Your task to perform on an android device: Open Google Chrome Image 0: 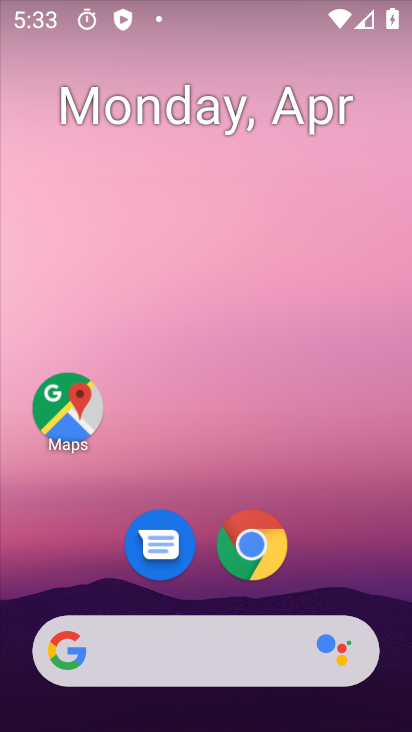
Step 0: click (261, 562)
Your task to perform on an android device: Open Google Chrome Image 1: 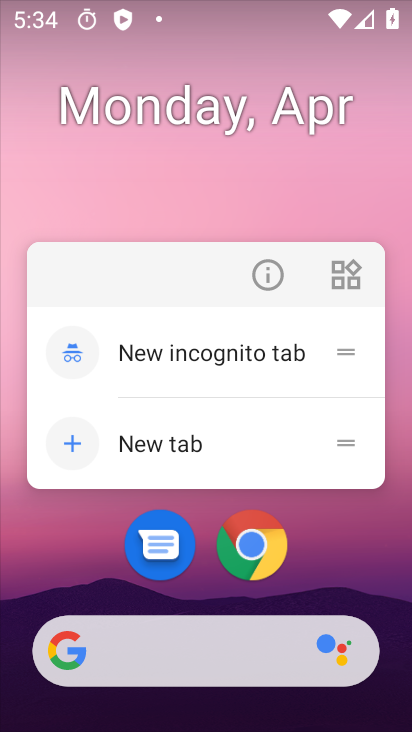
Step 1: click (325, 547)
Your task to perform on an android device: Open Google Chrome Image 2: 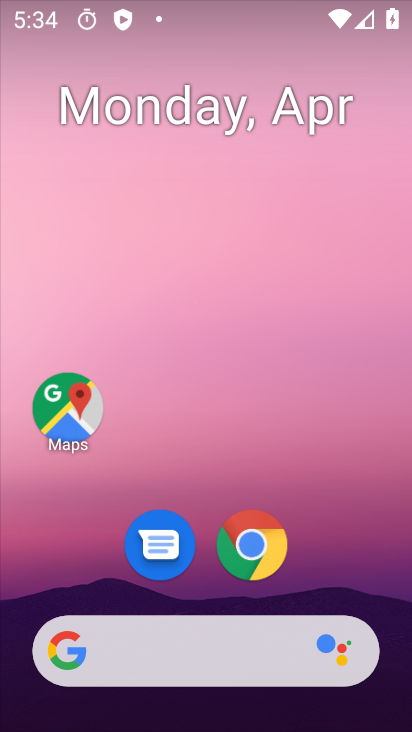
Step 2: click (268, 548)
Your task to perform on an android device: Open Google Chrome Image 3: 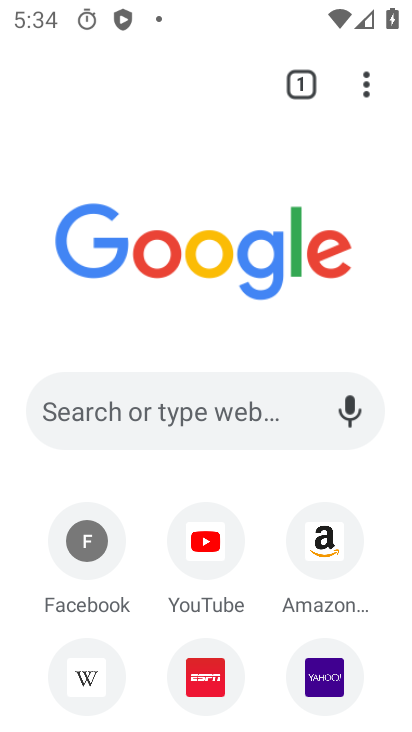
Step 3: task complete